Your task to perform on an android device: turn off data saver in the chrome app Image 0: 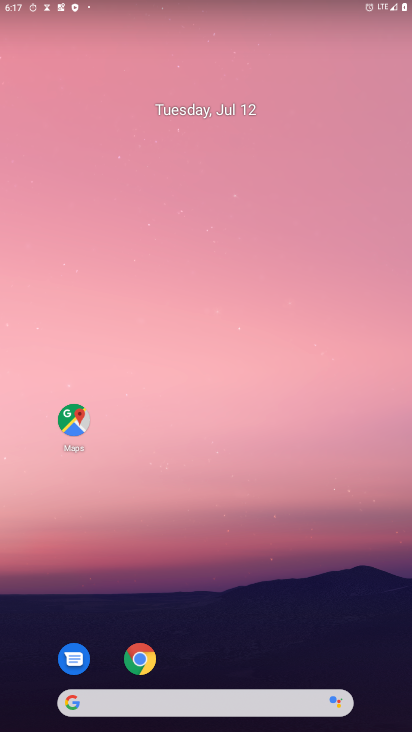
Step 0: press home button
Your task to perform on an android device: turn off data saver in the chrome app Image 1: 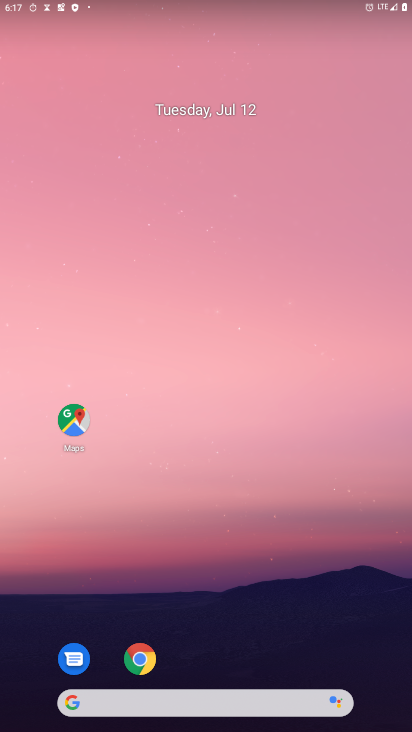
Step 1: click (137, 659)
Your task to perform on an android device: turn off data saver in the chrome app Image 2: 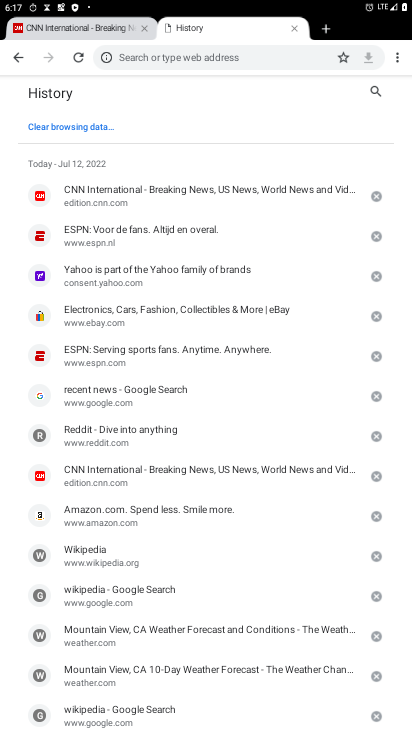
Step 2: click (397, 59)
Your task to perform on an android device: turn off data saver in the chrome app Image 3: 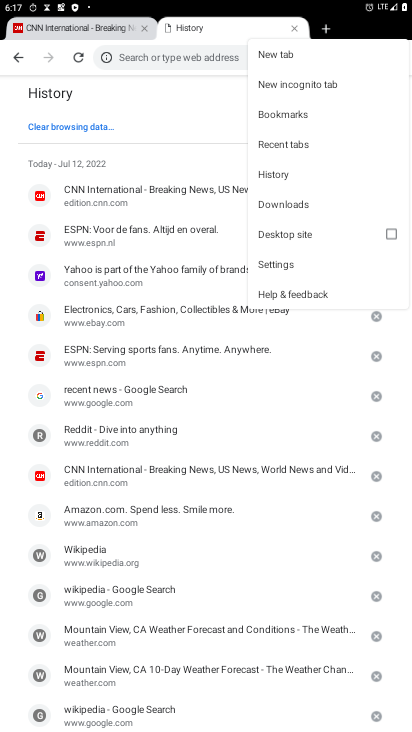
Step 3: click (297, 261)
Your task to perform on an android device: turn off data saver in the chrome app Image 4: 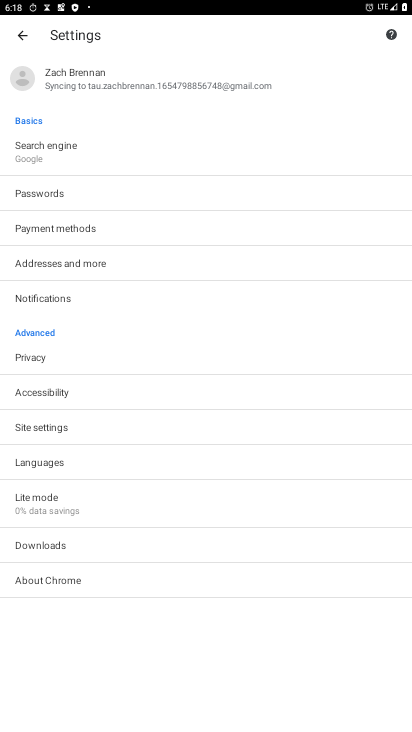
Step 4: click (49, 510)
Your task to perform on an android device: turn off data saver in the chrome app Image 5: 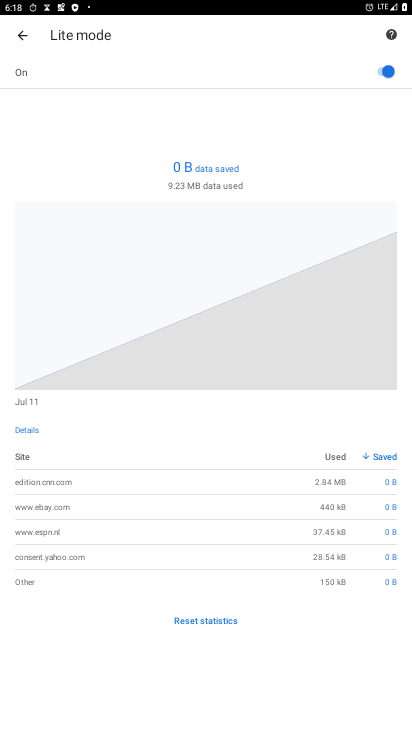
Step 5: click (381, 72)
Your task to perform on an android device: turn off data saver in the chrome app Image 6: 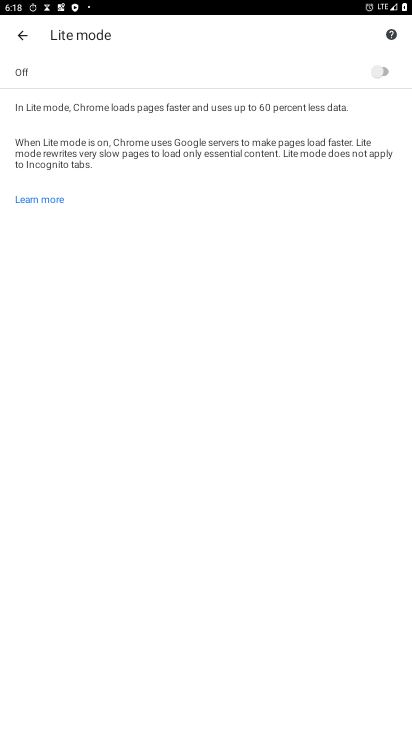
Step 6: task complete